Your task to perform on an android device: turn on priority inbox in the gmail app Image 0: 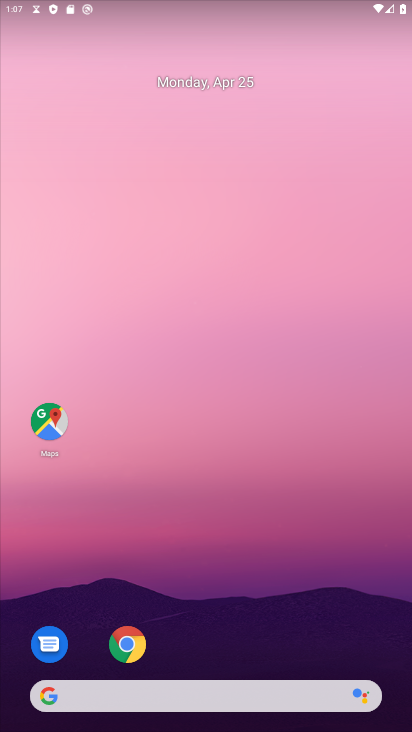
Step 0: drag from (342, 611) to (307, 1)
Your task to perform on an android device: turn on priority inbox in the gmail app Image 1: 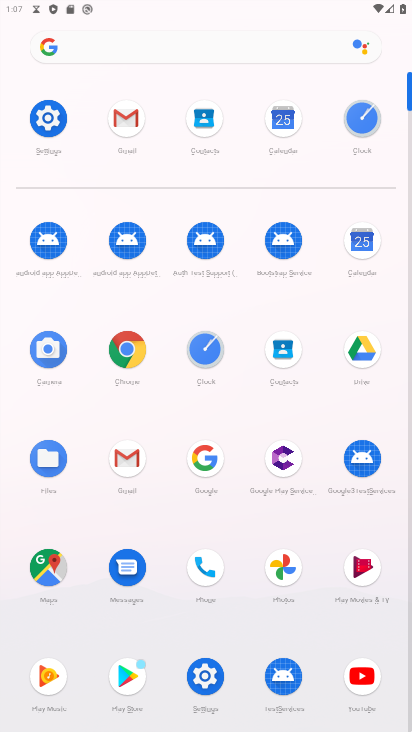
Step 1: click (122, 115)
Your task to perform on an android device: turn on priority inbox in the gmail app Image 2: 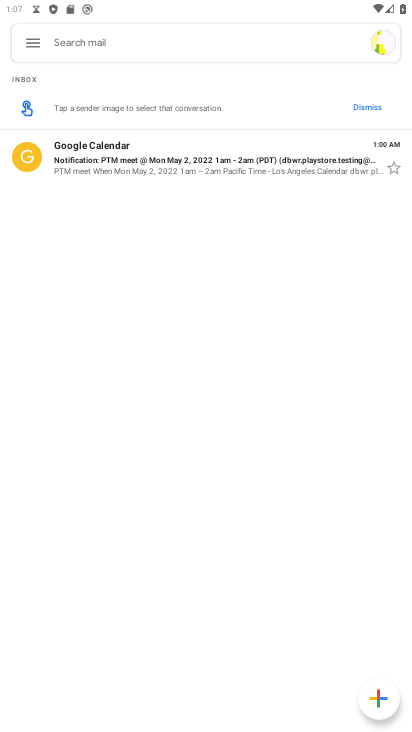
Step 2: click (30, 46)
Your task to perform on an android device: turn on priority inbox in the gmail app Image 3: 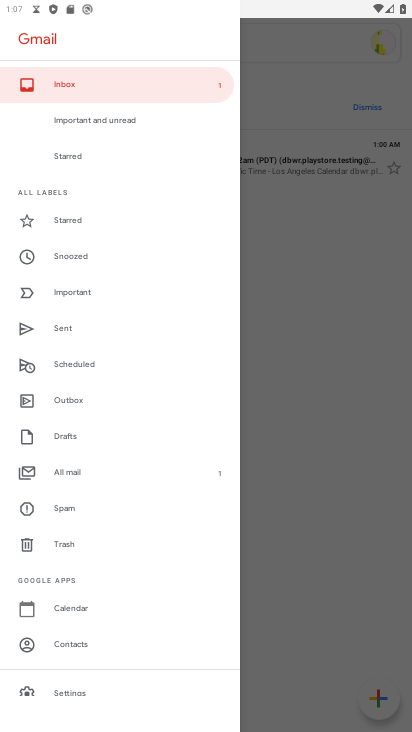
Step 3: click (74, 690)
Your task to perform on an android device: turn on priority inbox in the gmail app Image 4: 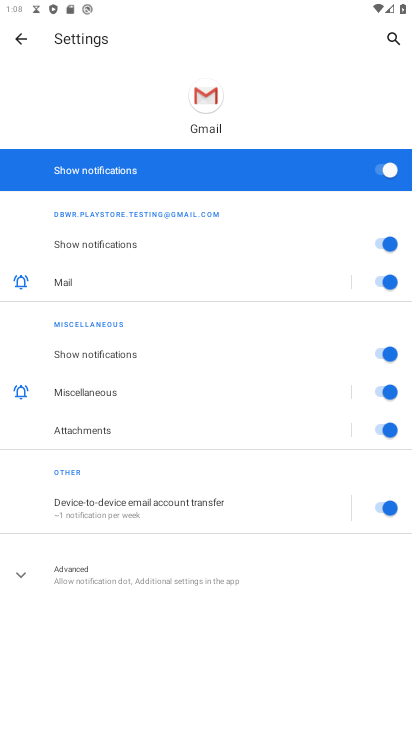
Step 4: click (19, 46)
Your task to perform on an android device: turn on priority inbox in the gmail app Image 5: 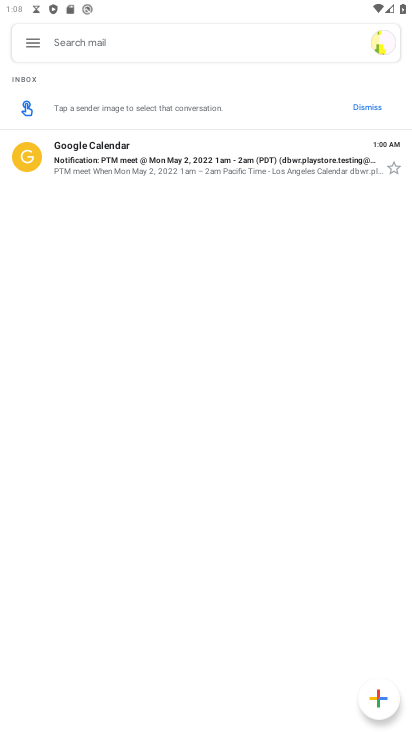
Step 5: click (30, 40)
Your task to perform on an android device: turn on priority inbox in the gmail app Image 6: 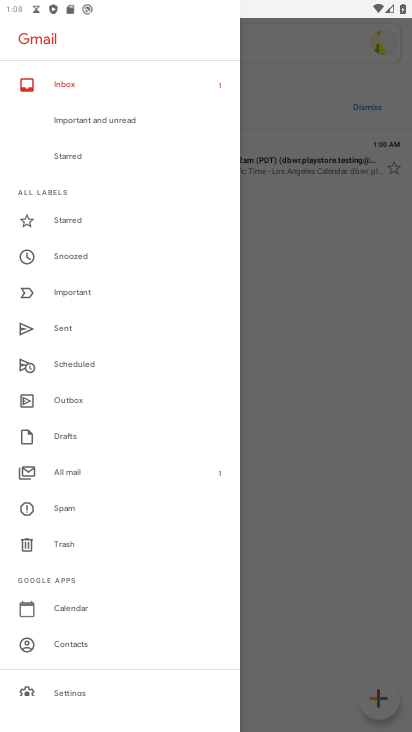
Step 6: click (81, 687)
Your task to perform on an android device: turn on priority inbox in the gmail app Image 7: 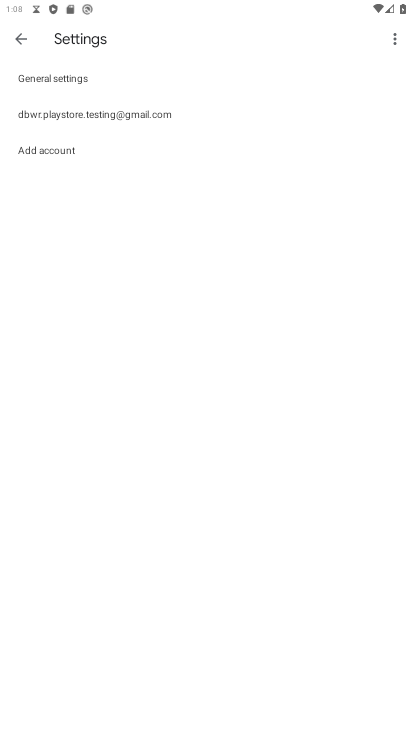
Step 7: click (93, 112)
Your task to perform on an android device: turn on priority inbox in the gmail app Image 8: 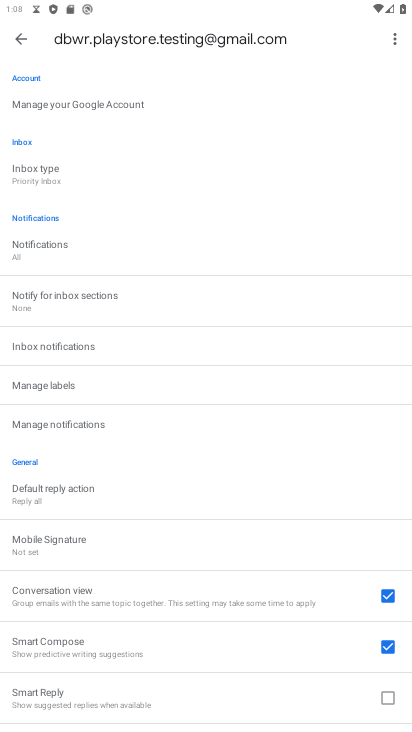
Step 8: click (38, 181)
Your task to perform on an android device: turn on priority inbox in the gmail app Image 9: 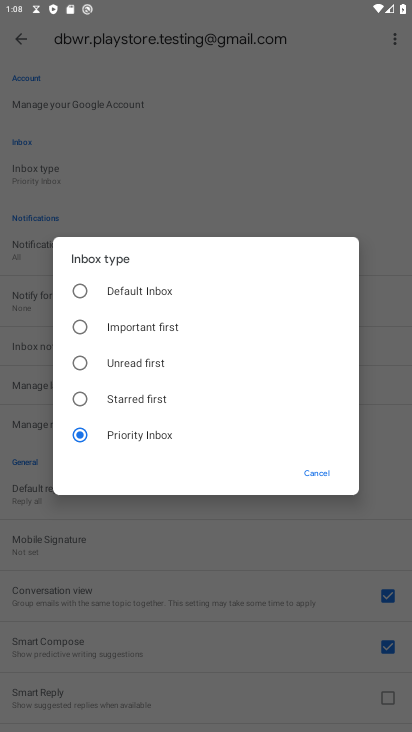
Step 9: task complete